Your task to perform on an android device: Open settings Image 0: 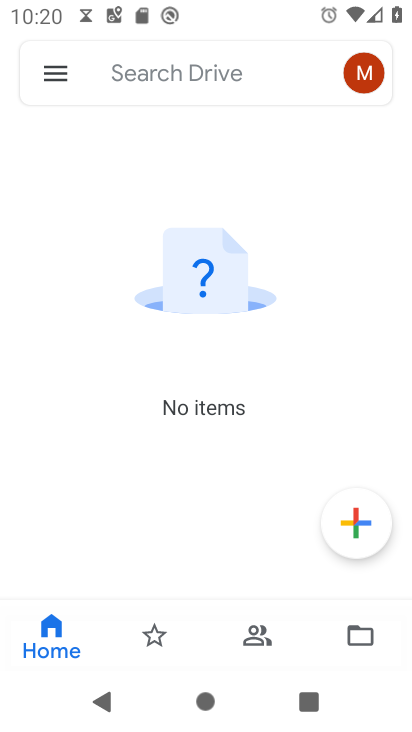
Step 0: press home button
Your task to perform on an android device: Open settings Image 1: 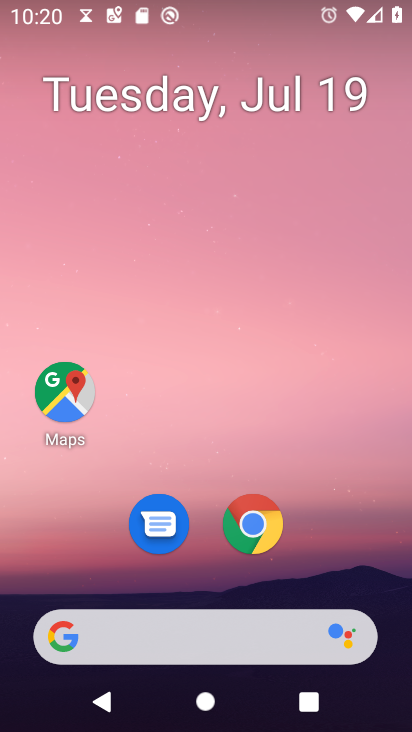
Step 1: drag from (202, 634) to (256, 161)
Your task to perform on an android device: Open settings Image 2: 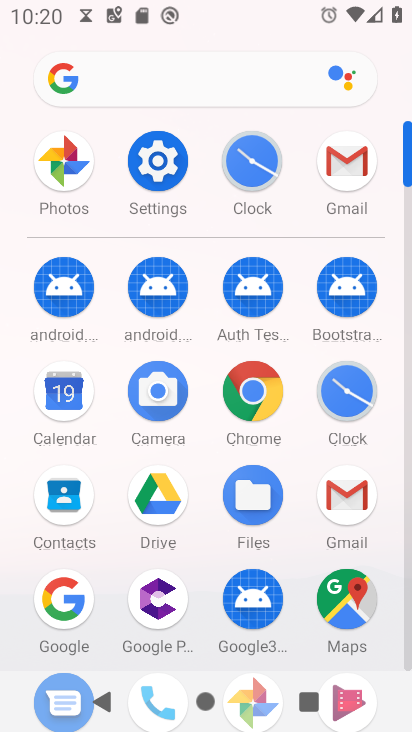
Step 2: click (152, 166)
Your task to perform on an android device: Open settings Image 3: 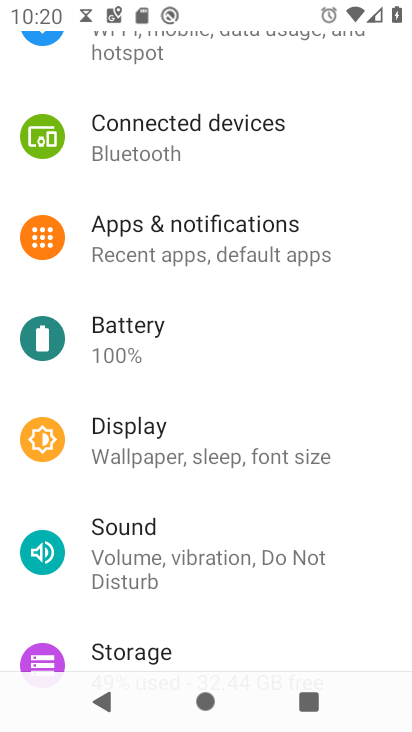
Step 3: task complete